Your task to perform on an android device: find photos in the google photos app Image 0: 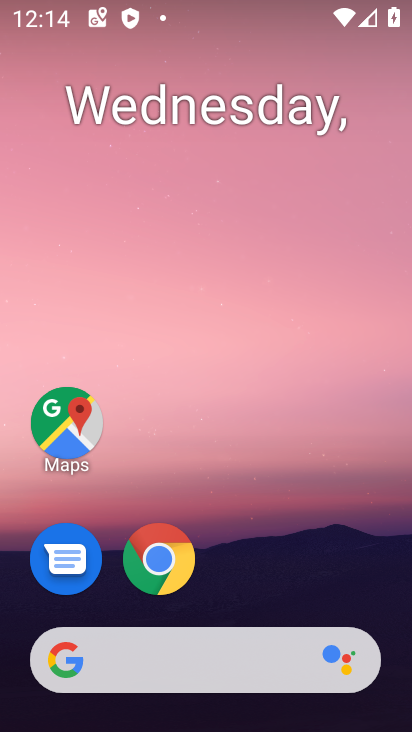
Step 0: drag from (224, 598) to (295, 10)
Your task to perform on an android device: find photos in the google photos app Image 1: 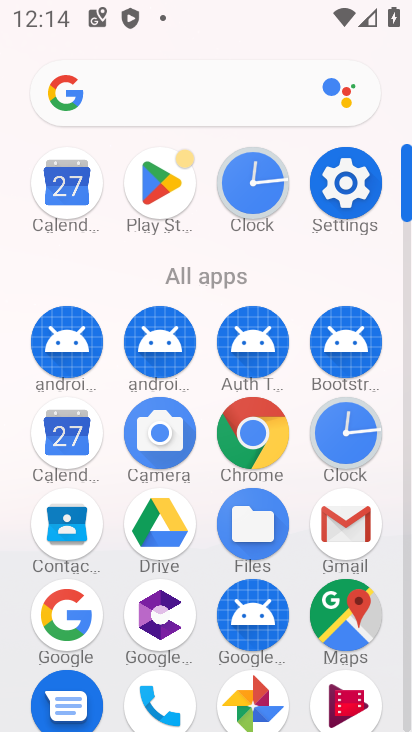
Step 1: click (261, 690)
Your task to perform on an android device: find photos in the google photos app Image 2: 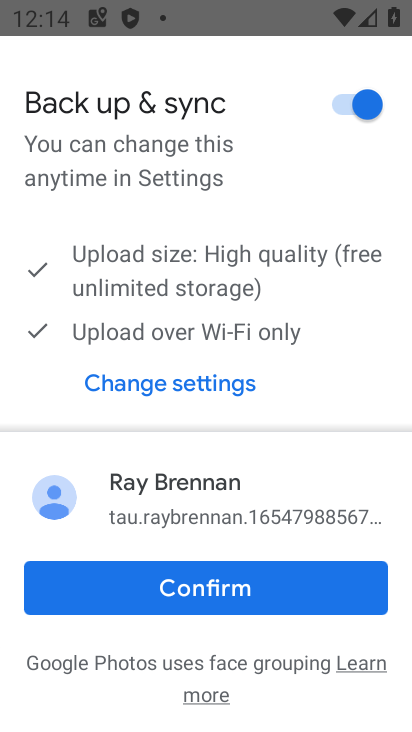
Step 2: click (228, 596)
Your task to perform on an android device: find photos in the google photos app Image 3: 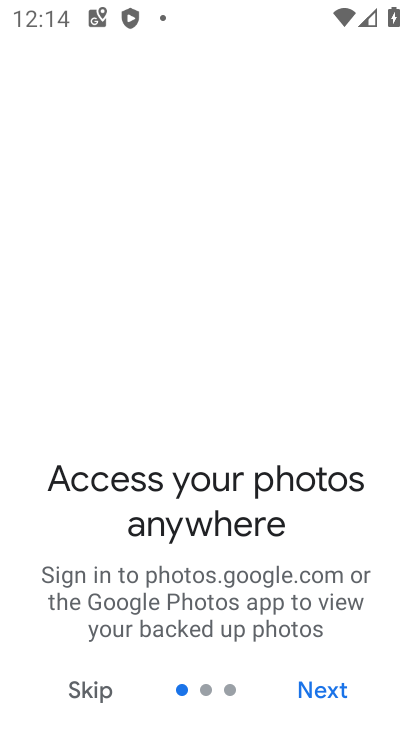
Step 3: click (78, 692)
Your task to perform on an android device: find photos in the google photos app Image 4: 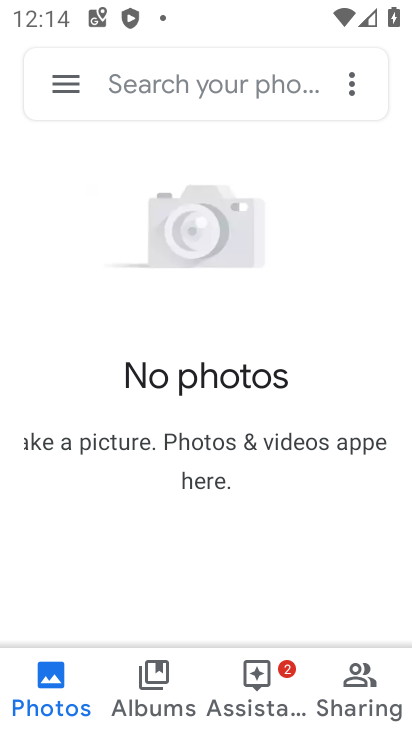
Step 4: click (57, 685)
Your task to perform on an android device: find photos in the google photos app Image 5: 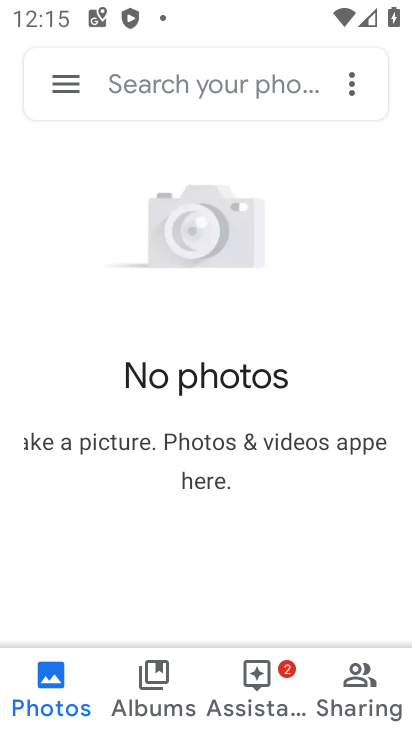
Step 5: task complete